Your task to perform on an android device: When is my next appointment? Image 0: 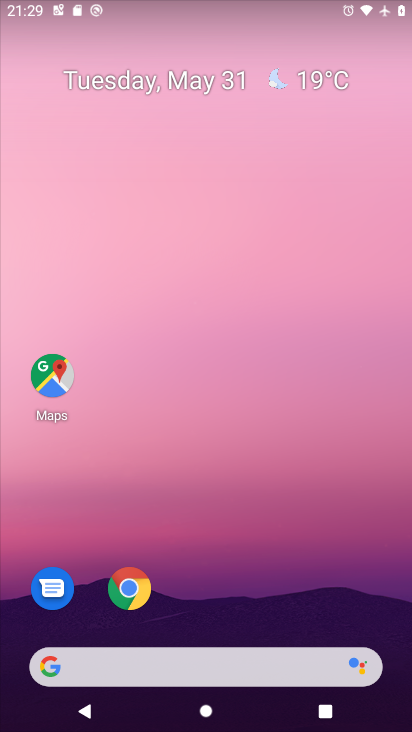
Step 0: drag from (193, 663) to (308, 91)
Your task to perform on an android device: When is my next appointment? Image 1: 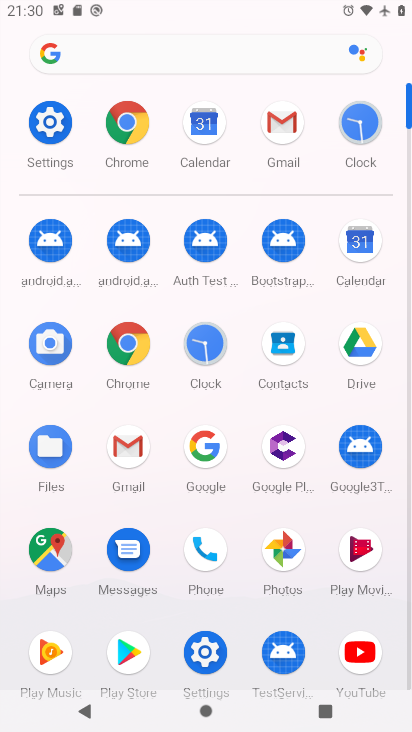
Step 1: click (359, 247)
Your task to perform on an android device: When is my next appointment? Image 2: 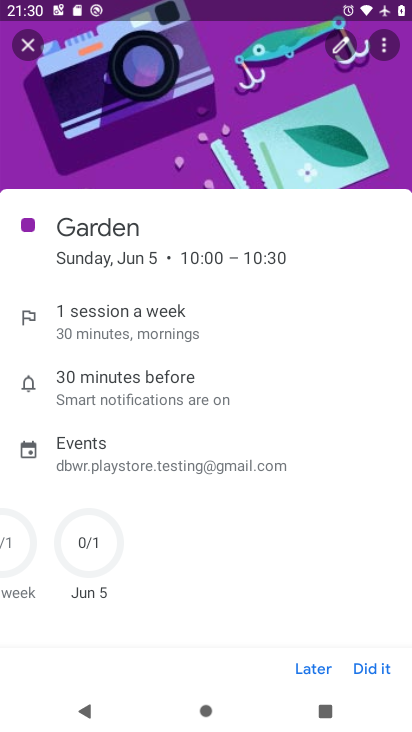
Step 2: click (27, 39)
Your task to perform on an android device: When is my next appointment? Image 3: 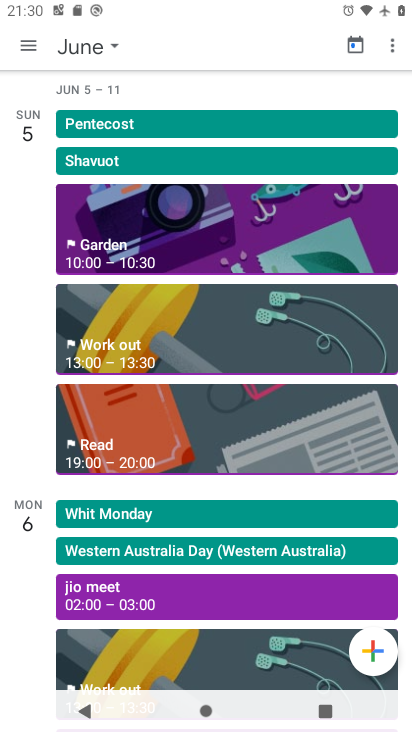
Step 3: click (92, 44)
Your task to perform on an android device: When is my next appointment? Image 4: 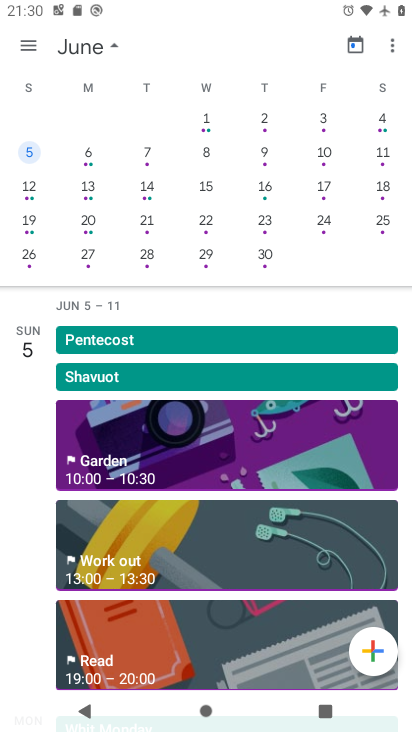
Step 4: drag from (144, 199) to (411, 294)
Your task to perform on an android device: When is my next appointment? Image 5: 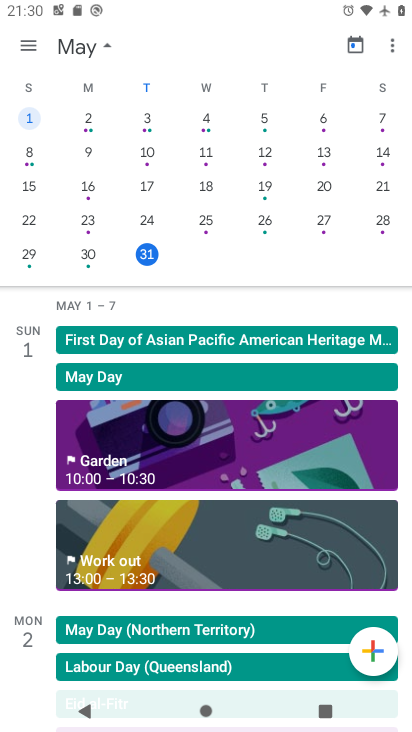
Step 5: click (148, 253)
Your task to perform on an android device: When is my next appointment? Image 6: 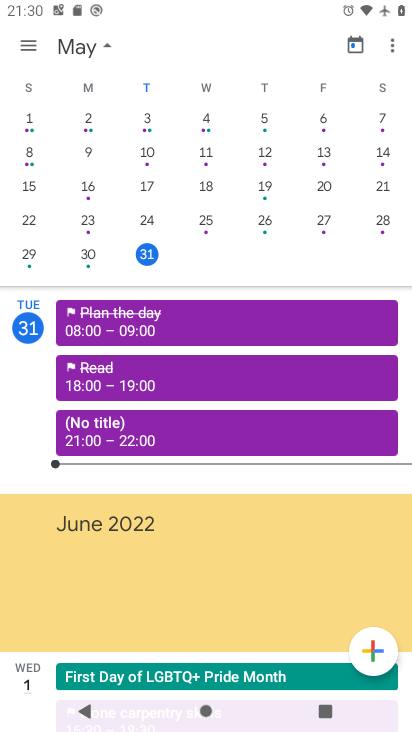
Step 6: click (30, 38)
Your task to perform on an android device: When is my next appointment? Image 7: 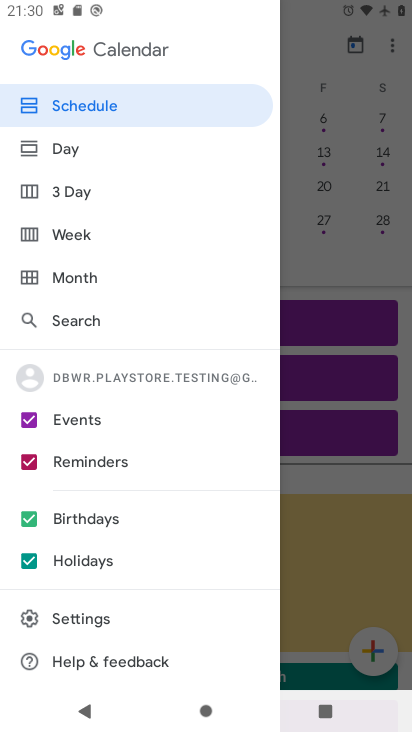
Step 7: click (77, 100)
Your task to perform on an android device: When is my next appointment? Image 8: 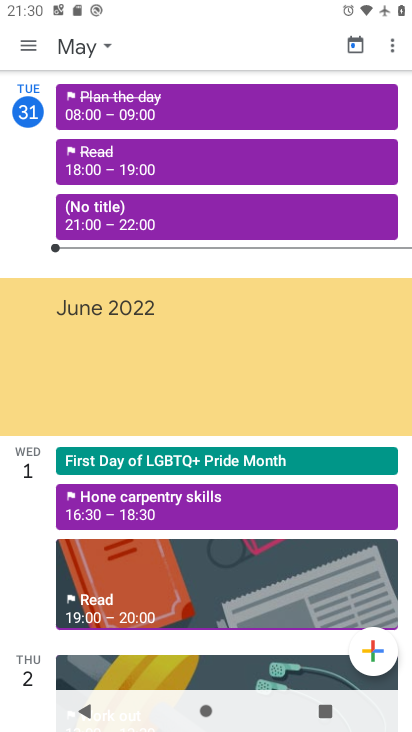
Step 8: task complete